Your task to perform on an android device: toggle javascript in the chrome app Image 0: 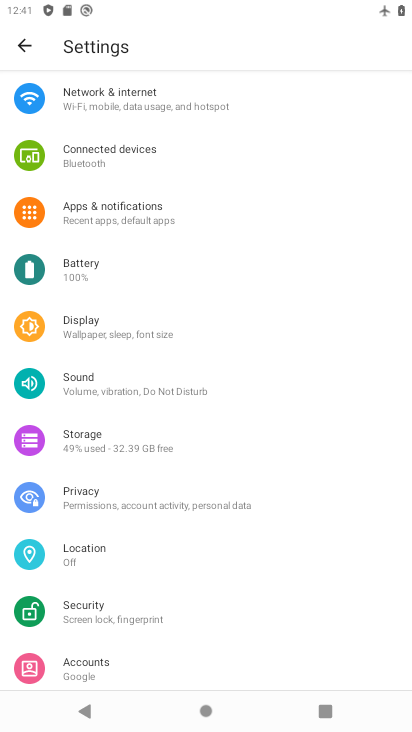
Step 0: press home button
Your task to perform on an android device: toggle javascript in the chrome app Image 1: 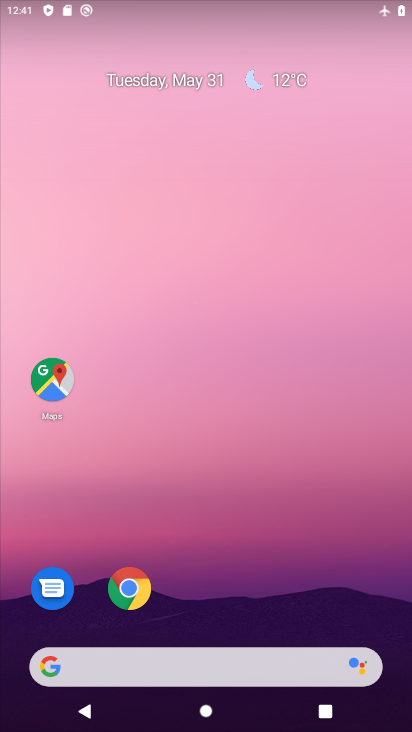
Step 1: click (123, 584)
Your task to perform on an android device: toggle javascript in the chrome app Image 2: 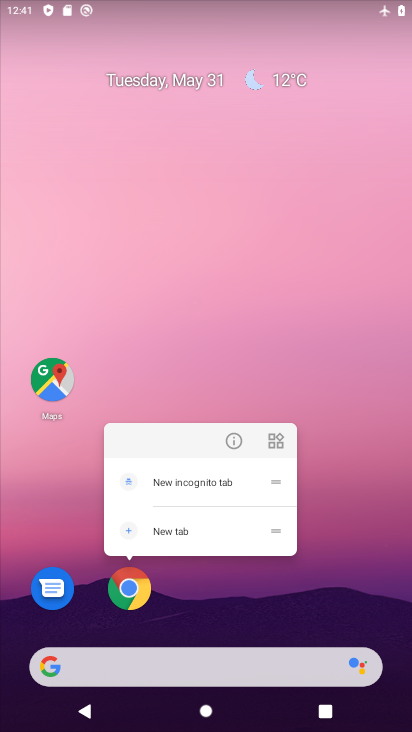
Step 2: click (125, 588)
Your task to perform on an android device: toggle javascript in the chrome app Image 3: 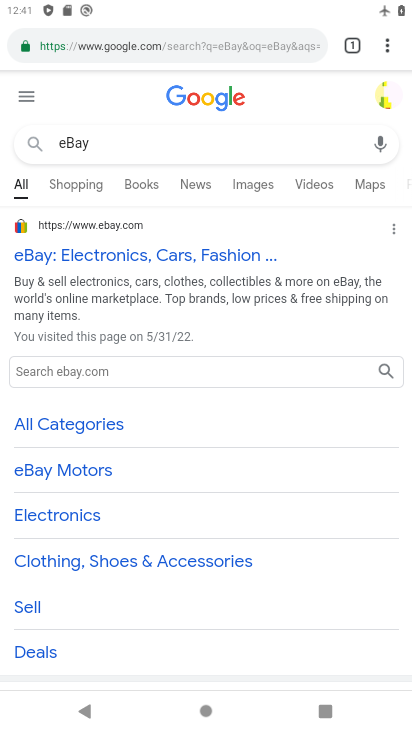
Step 3: click (386, 39)
Your task to perform on an android device: toggle javascript in the chrome app Image 4: 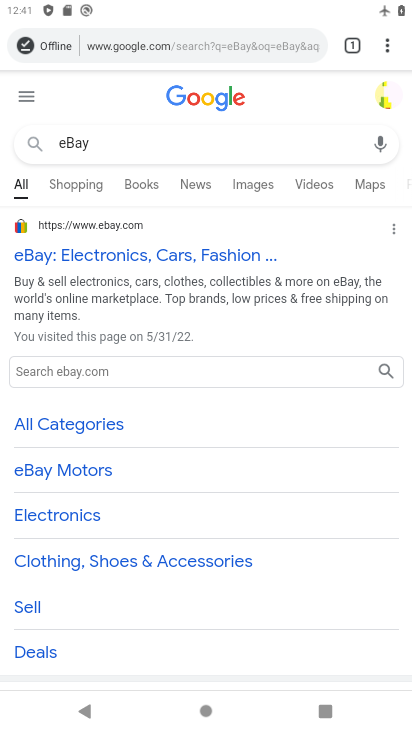
Step 4: click (386, 41)
Your task to perform on an android device: toggle javascript in the chrome app Image 5: 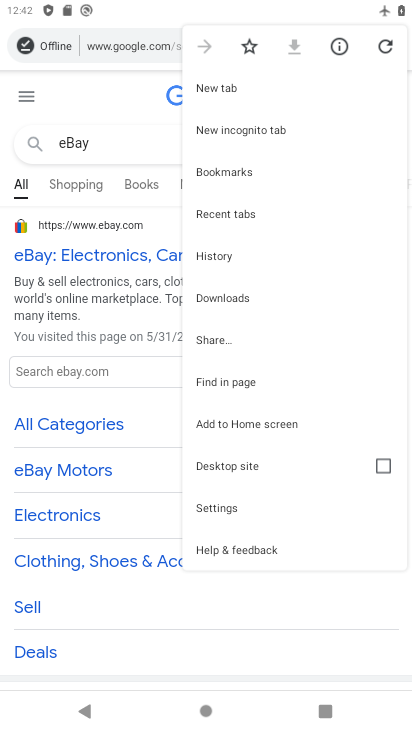
Step 5: click (223, 506)
Your task to perform on an android device: toggle javascript in the chrome app Image 6: 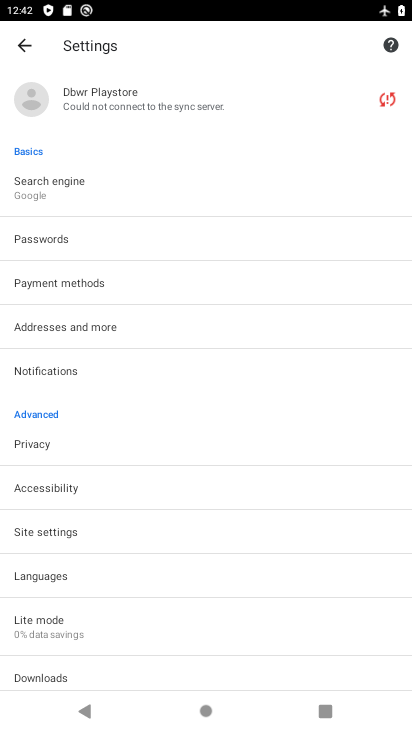
Step 6: click (54, 531)
Your task to perform on an android device: toggle javascript in the chrome app Image 7: 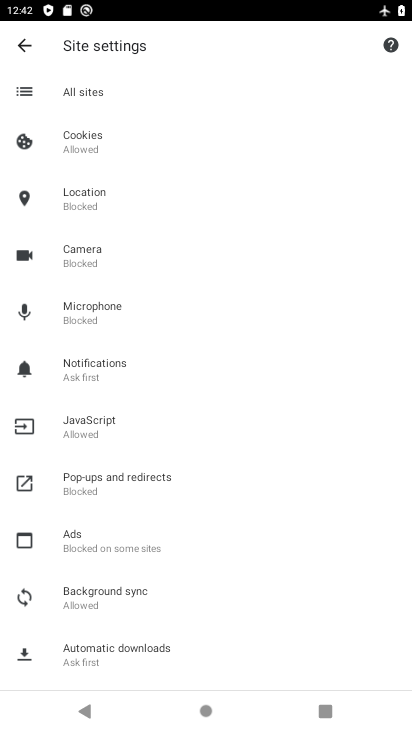
Step 7: click (95, 426)
Your task to perform on an android device: toggle javascript in the chrome app Image 8: 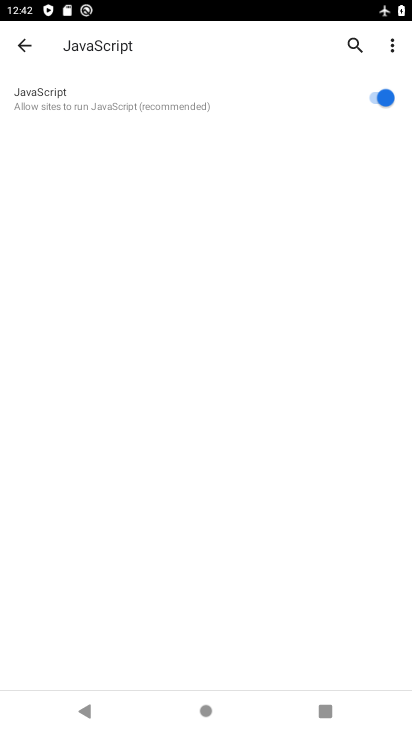
Step 8: click (378, 95)
Your task to perform on an android device: toggle javascript in the chrome app Image 9: 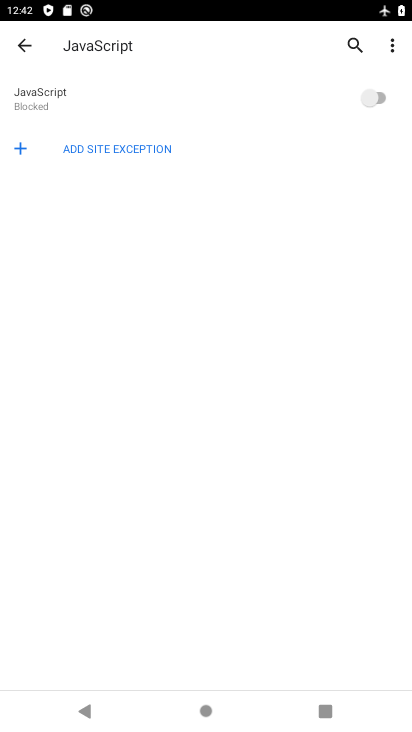
Step 9: task complete